Your task to perform on an android device: Is it going to rain tomorrow? Image 0: 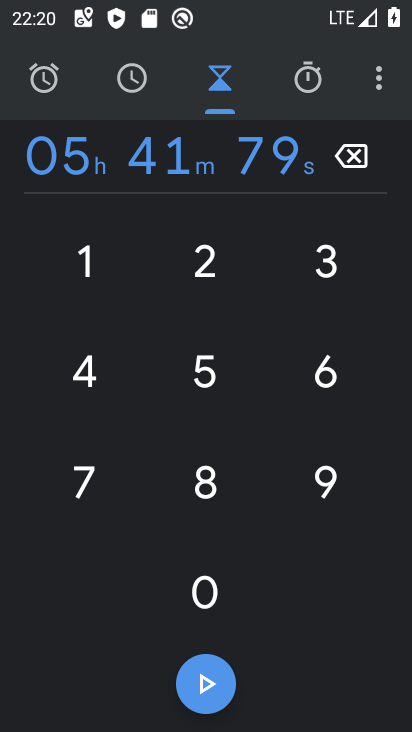
Step 0: press home button
Your task to perform on an android device: Is it going to rain tomorrow? Image 1: 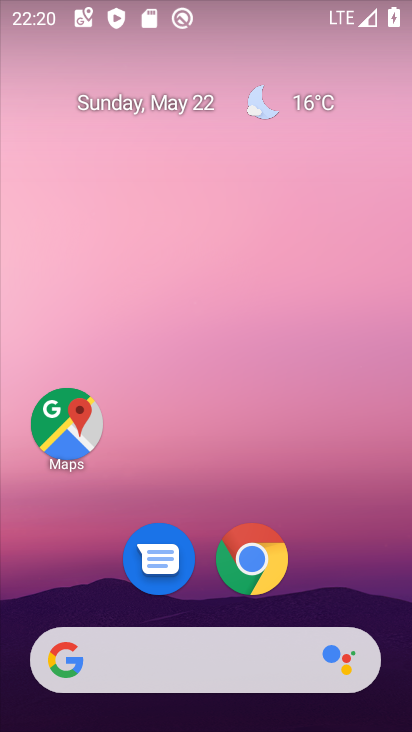
Step 1: drag from (193, 691) to (245, 367)
Your task to perform on an android device: Is it going to rain tomorrow? Image 2: 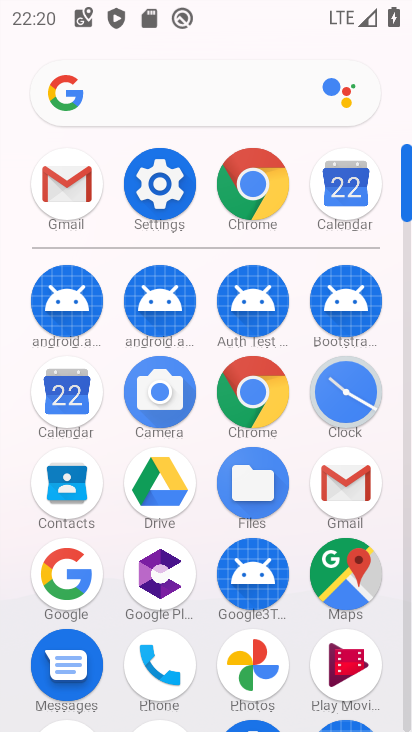
Step 2: click (161, 92)
Your task to perform on an android device: Is it going to rain tomorrow? Image 3: 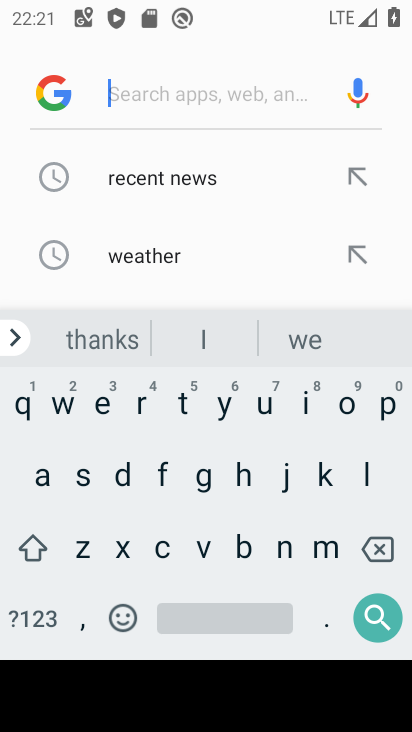
Step 3: click (142, 255)
Your task to perform on an android device: Is it going to rain tomorrow? Image 4: 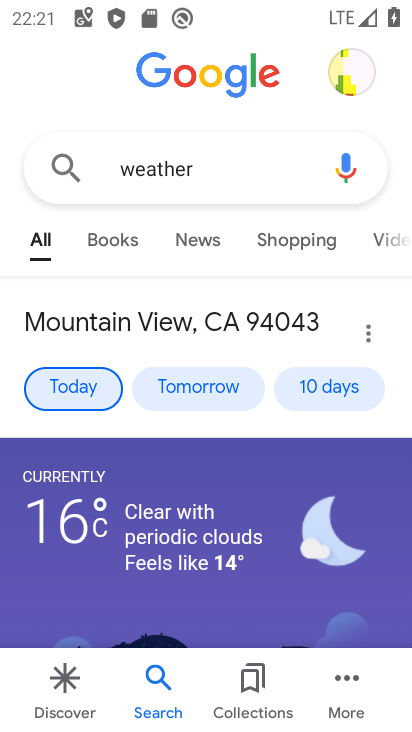
Step 4: click (182, 388)
Your task to perform on an android device: Is it going to rain tomorrow? Image 5: 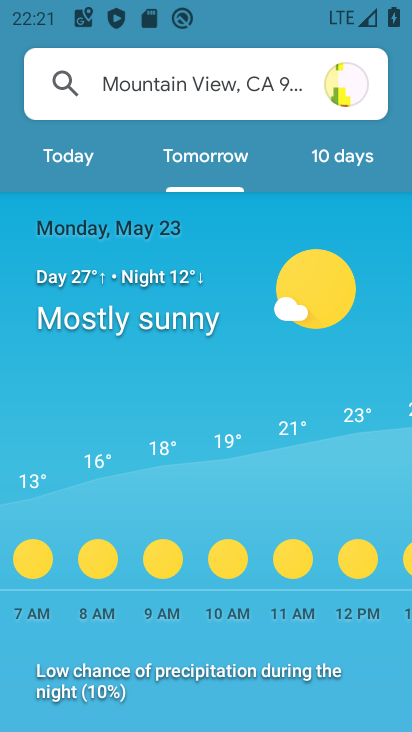
Step 5: task complete